Your task to perform on an android device: What's on my calendar today? Image 0: 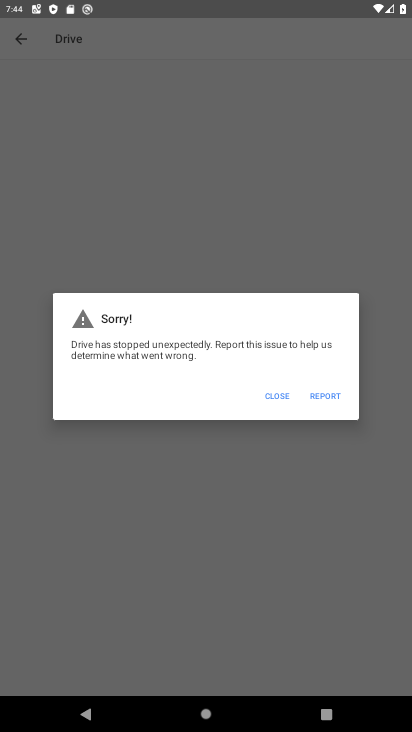
Step 0: press home button
Your task to perform on an android device: What's on my calendar today? Image 1: 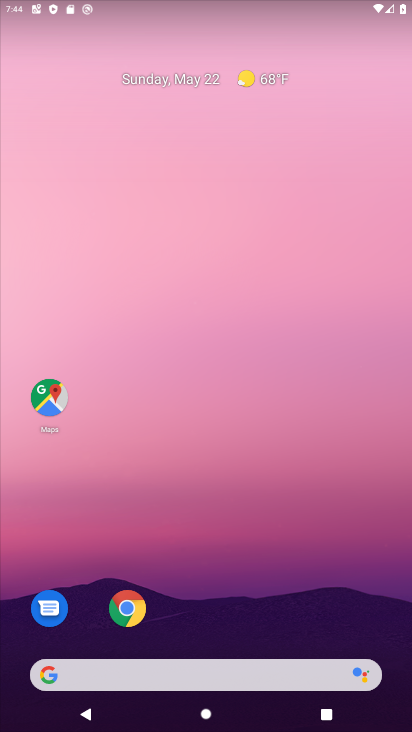
Step 1: drag from (225, 729) to (213, 151)
Your task to perform on an android device: What's on my calendar today? Image 2: 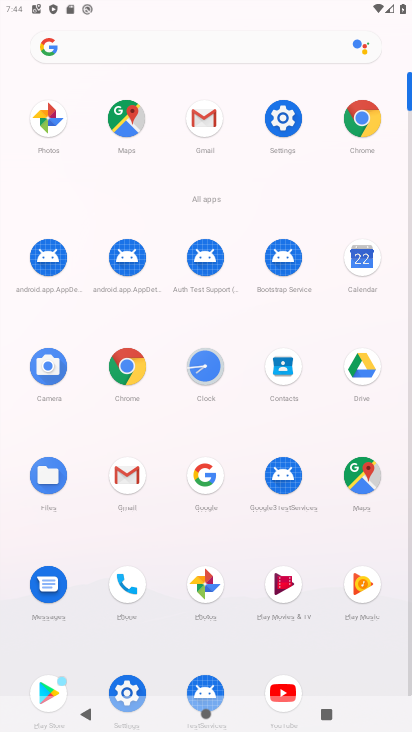
Step 2: click (357, 265)
Your task to perform on an android device: What's on my calendar today? Image 3: 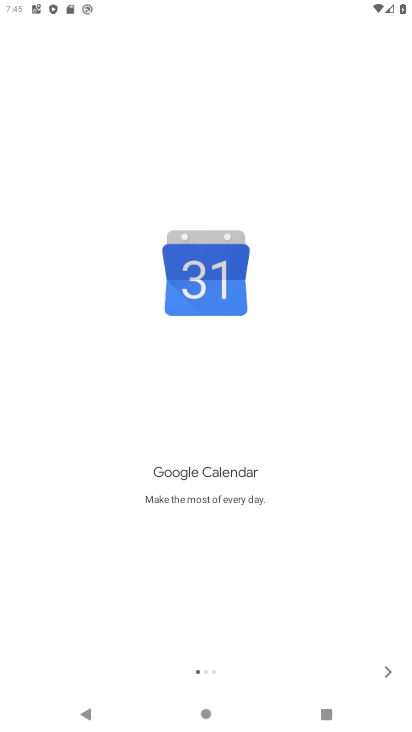
Step 3: click (388, 670)
Your task to perform on an android device: What's on my calendar today? Image 4: 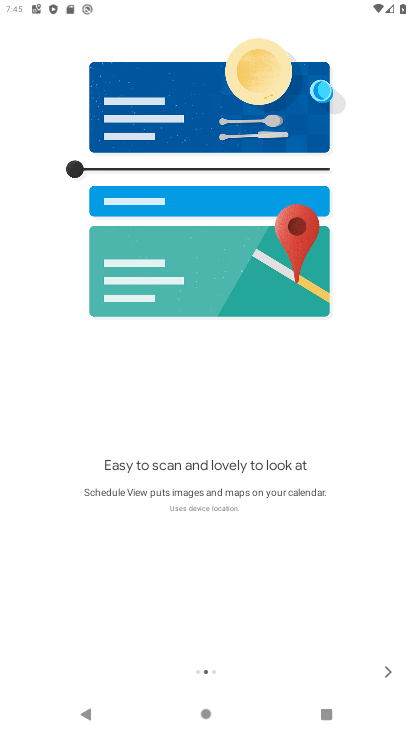
Step 4: click (388, 670)
Your task to perform on an android device: What's on my calendar today? Image 5: 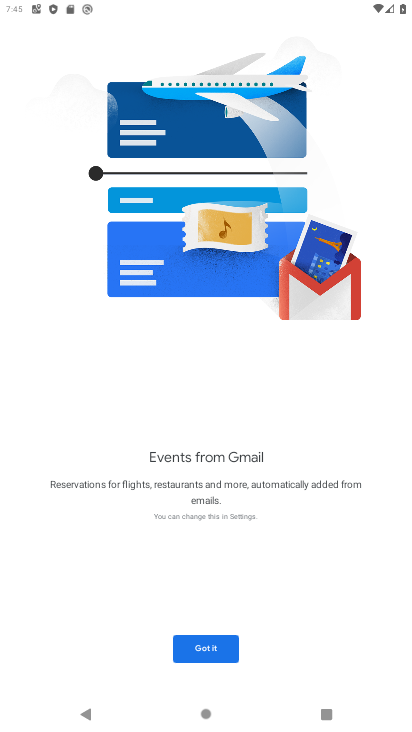
Step 5: click (208, 647)
Your task to perform on an android device: What's on my calendar today? Image 6: 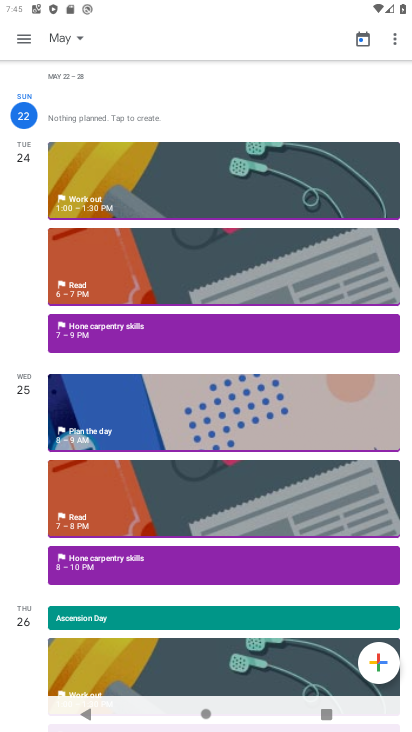
Step 6: click (67, 34)
Your task to perform on an android device: What's on my calendar today? Image 7: 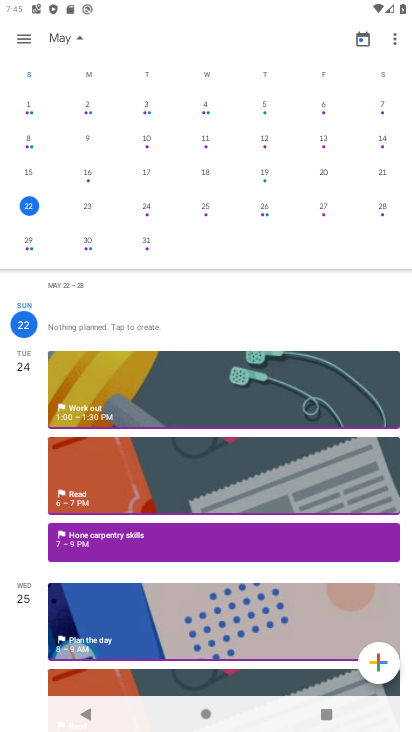
Step 7: click (30, 202)
Your task to perform on an android device: What's on my calendar today? Image 8: 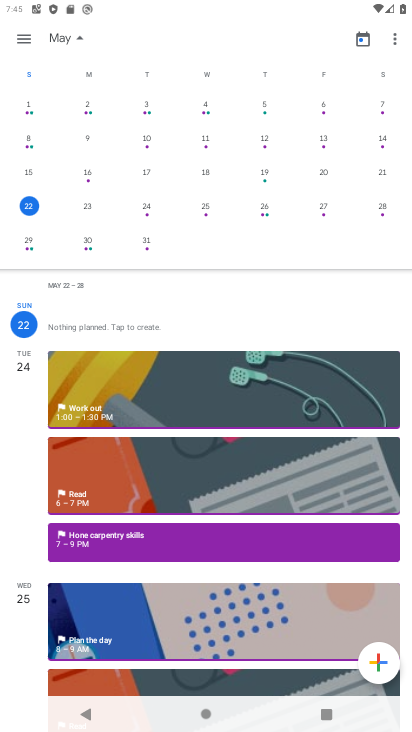
Step 8: task complete